Your task to perform on an android device: turn off airplane mode Image 0: 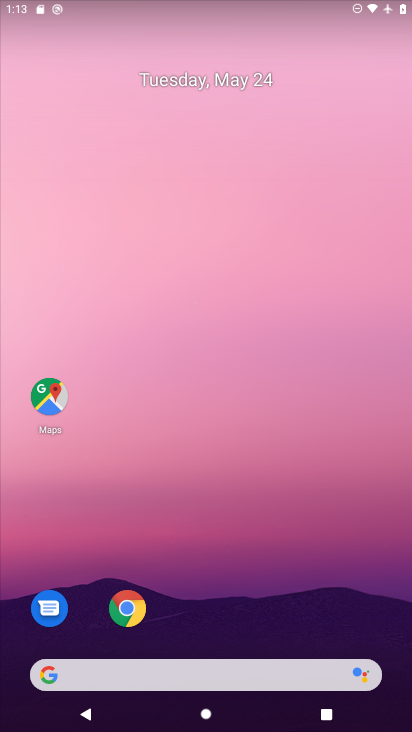
Step 0: drag from (243, 617) to (213, 188)
Your task to perform on an android device: turn off airplane mode Image 1: 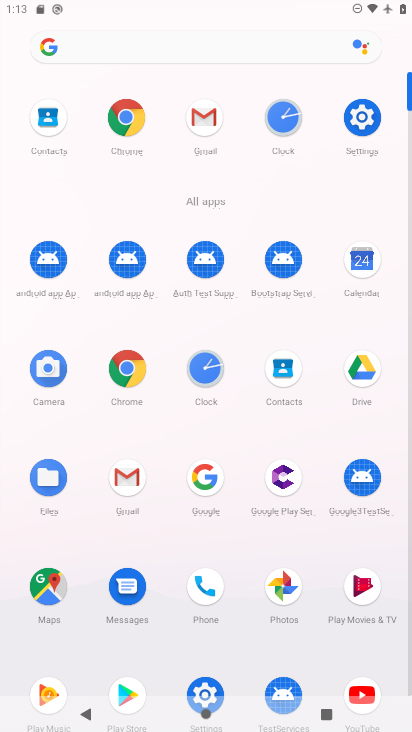
Step 1: click (371, 120)
Your task to perform on an android device: turn off airplane mode Image 2: 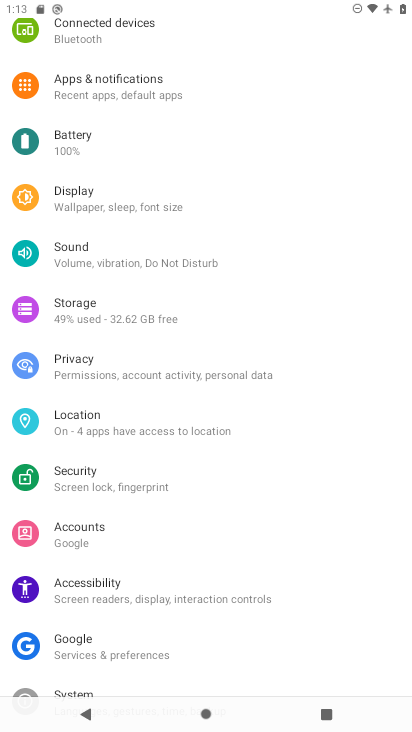
Step 2: drag from (193, 233) to (188, 636)
Your task to perform on an android device: turn off airplane mode Image 3: 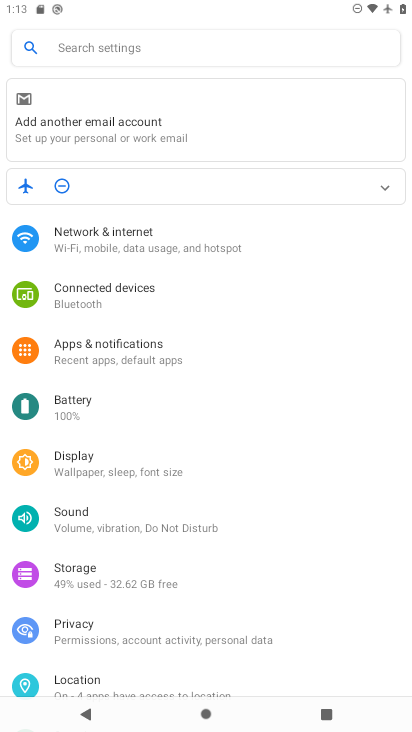
Step 3: click (226, 249)
Your task to perform on an android device: turn off airplane mode Image 4: 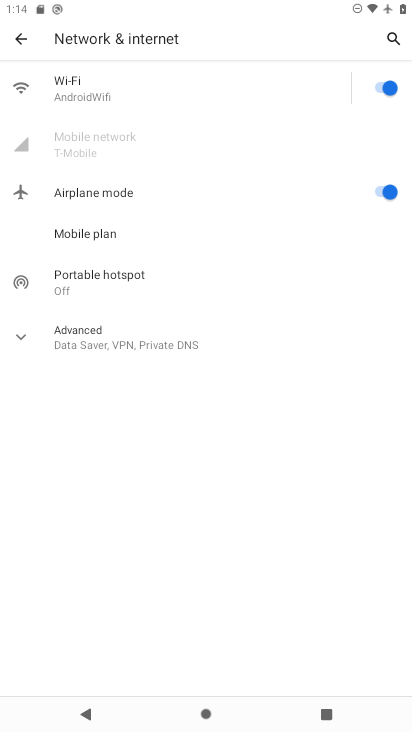
Step 4: click (368, 205)
Your task to perform on an android device: turn off airplane mode Image 5: 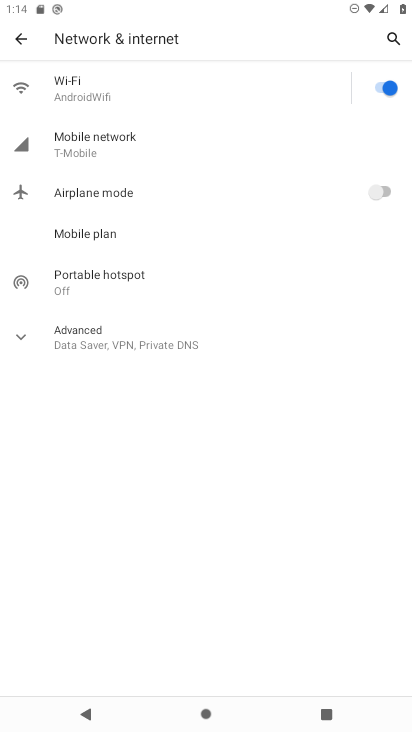
Step 5: click (32, 36)
Your task to perform on an android device: turn off airplane mode Image 6: 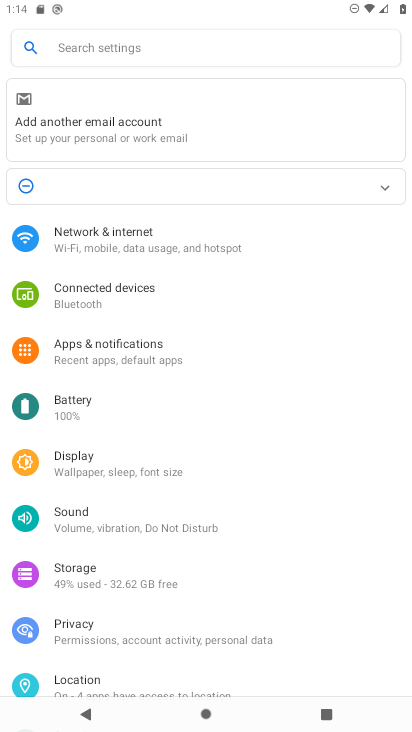
Step 6: click (375, 182)
Your task to perform on an android device: turn off airplane mode Image 7: 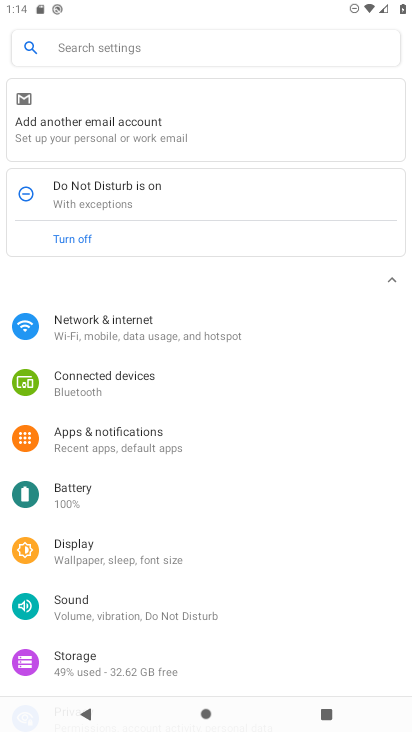
Step 7: click (155, 233)
Your task to perform on an android device: turn off airplane mode Image 8: 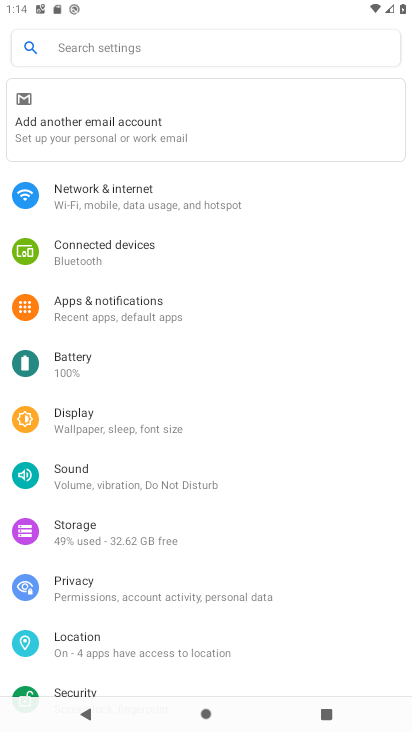
Step 8: task complete